Your task to perform on an android device: toggle location history Image 0: 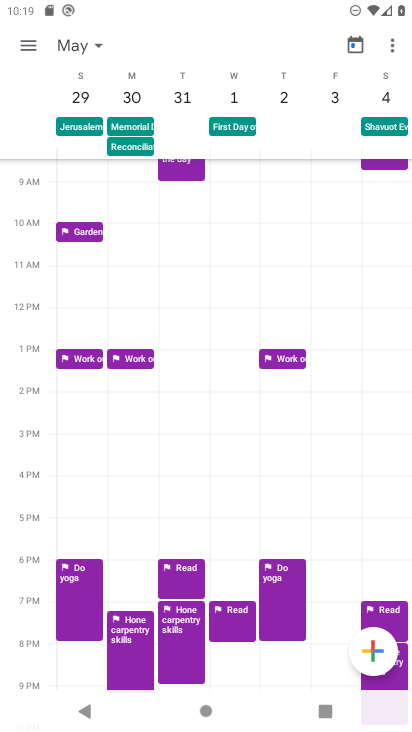
Step 0: press home button
Your task to perform on an android device: toggle location history Image 1: 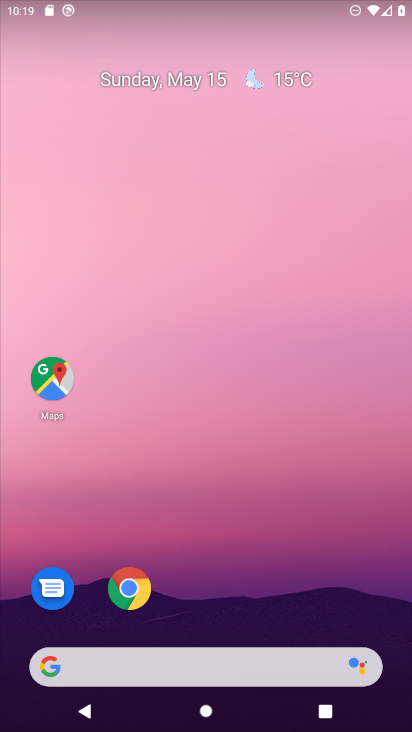
Step 1: drag from (243, 491) to (255, 53)
Your task to perform on an android device: toggle location history Image 2: 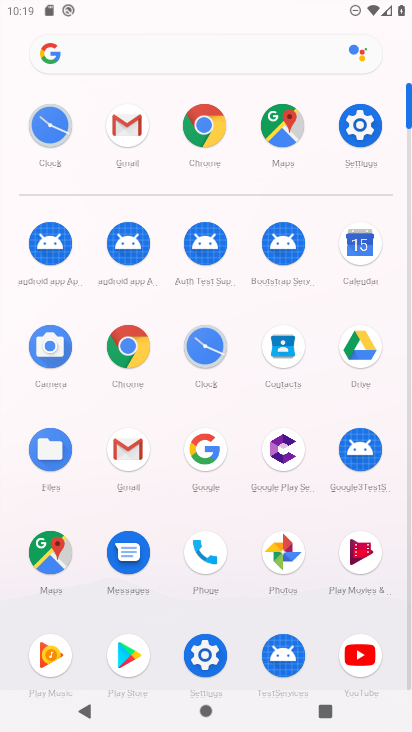
Step 2: click (367, 128)
Your task to perform on an android device: toggle location history Image 3: 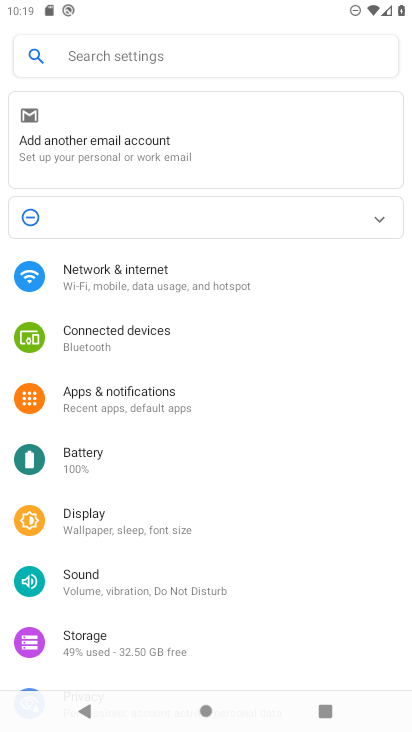
Step 3: drag from (147, 613) to (190, 340)
Your task to perform on an android device: toggle location history Image 4: 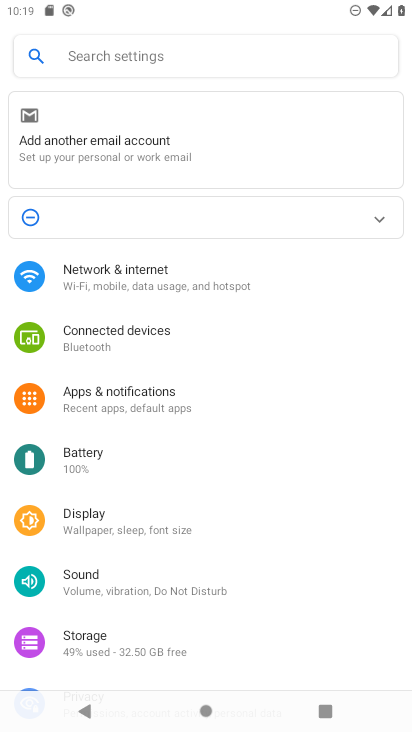
Step 4: drag from (149, 439) to (199, 134)
Your task to perform on an android device: toggle location history Image 5: 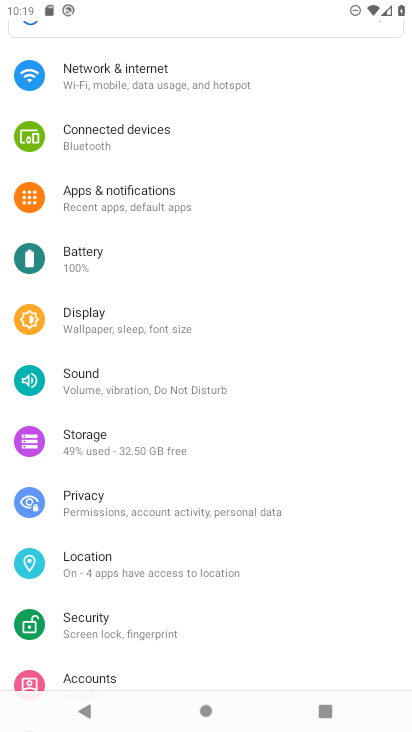
Step 5: click (115, 572)
Your task to perform on an android device: toggle location history Image 6: 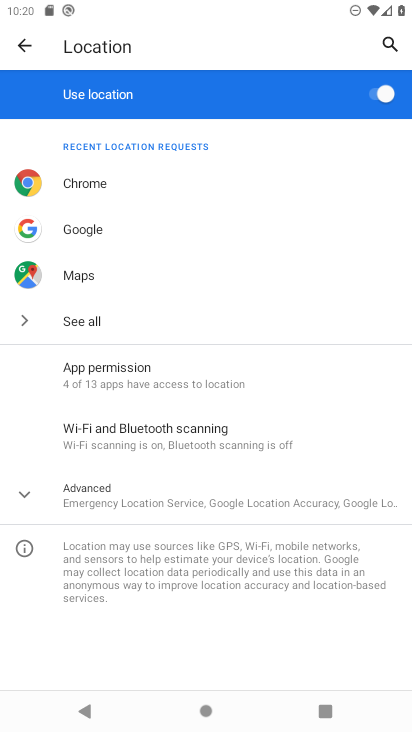
Step 6: click (164, 504)
Your task to perform on an android device: toggle location history Image 7: 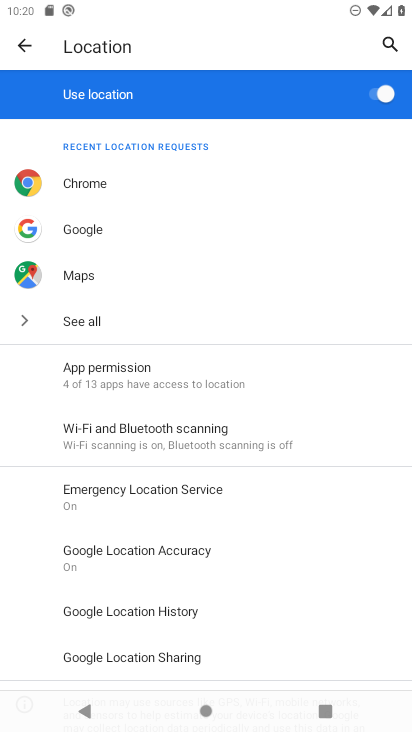
Step 7: click (153, 614)
Your task to perform on an android device: toggle location history Image 8: 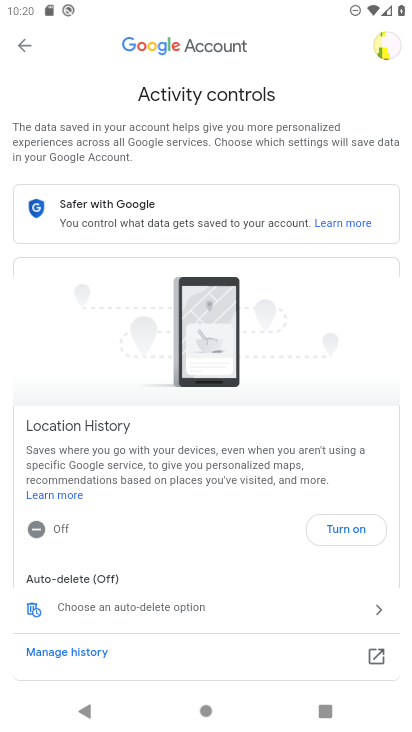
Step 8: click (348, 532)
Your task to perform on an android device: toggle location history Image 9: 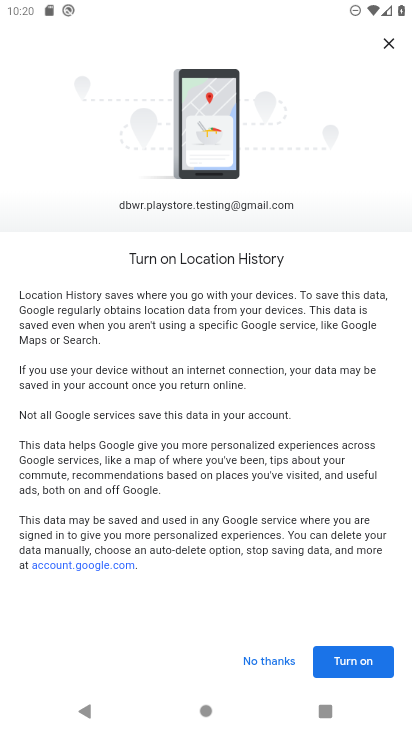
Step 9: click (342, 649)
Your task to perform on an android device: toggle location history Image 10: 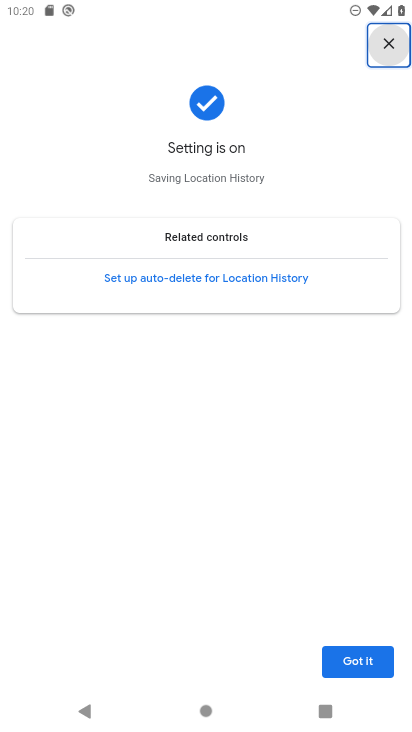
Step 10: click (353, 666)
Your task to perform on an android device: toggle location history Image 11: 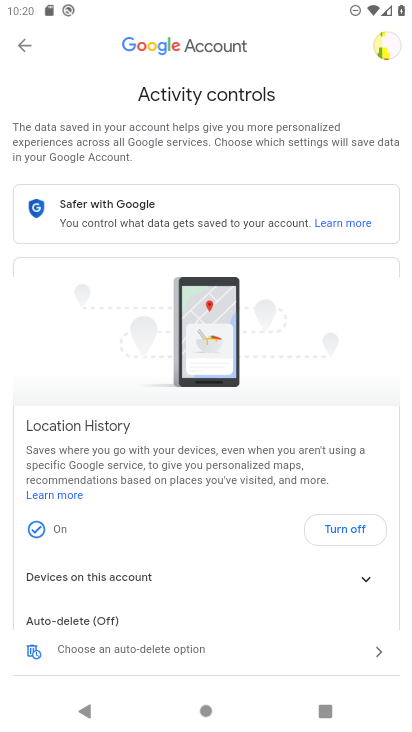
Step 11: task complete